Your task to perform on an android device: find which apps use the phone's location Image 0: 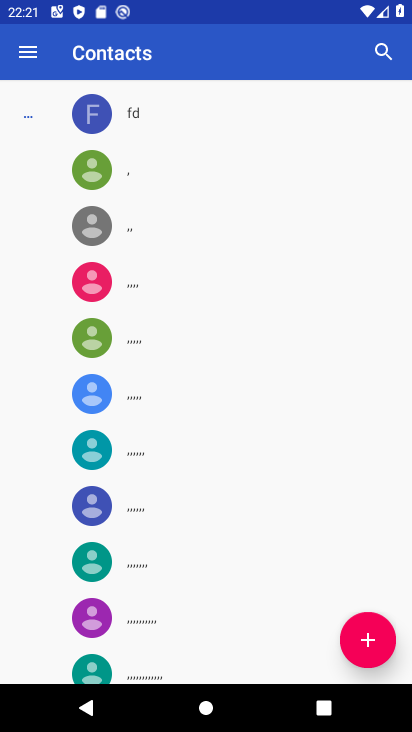
Step 0: press home button
Your task to perform on an android device: find which apps use the phone's location Image 1: 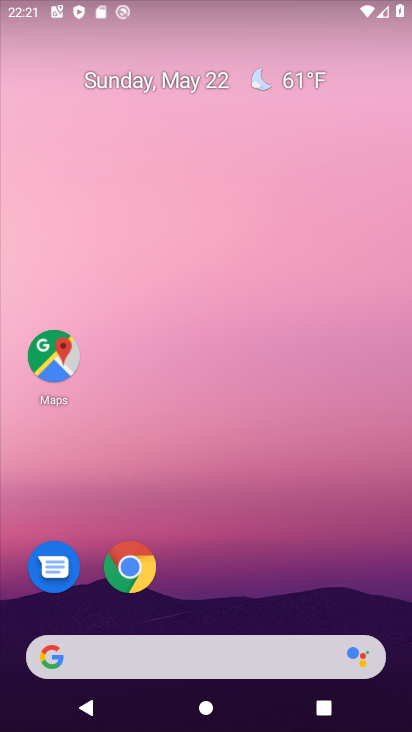
Step 1: drag from (202, 615) to (332, 46)
Your task to perform on an android device: find which apps use the phone's location Image 2: 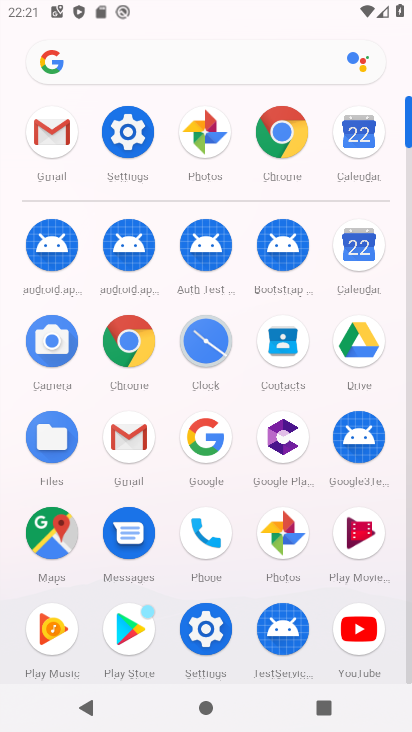
Step 2: click (118, 123)
Your task to perform on an android device: find which apps use the phone's location Image 3: 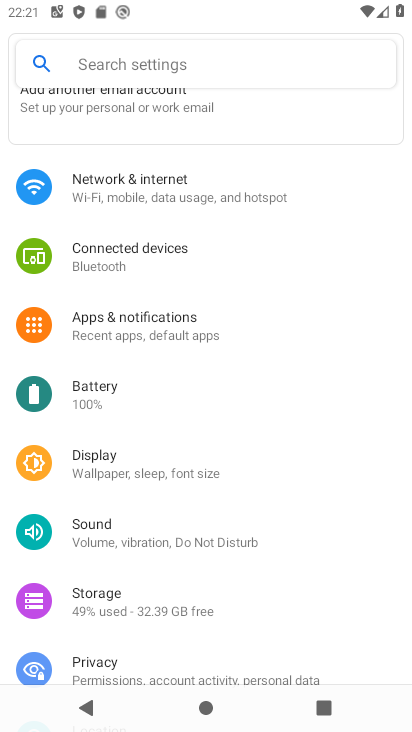
Step 3: drag from (92, 574) to (2, 65)
Your task to perform on an android device: find which apps use the phone's location Image 4: 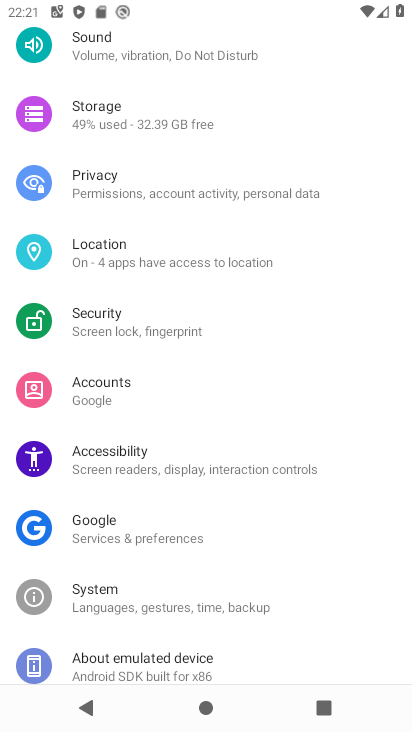
Step 4: click (83, 254)
Your task to perform on an android device: find which apps use the phone's location Image 5: 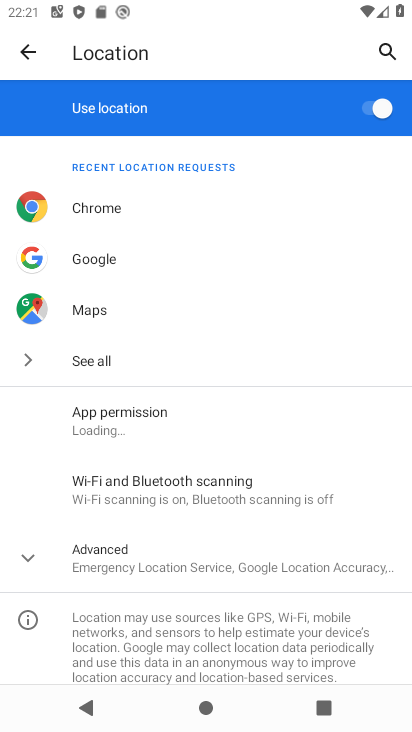
Step 5: click (130, 546)
Your task to perform on an android device: find which apps use the phone's location Image 6: 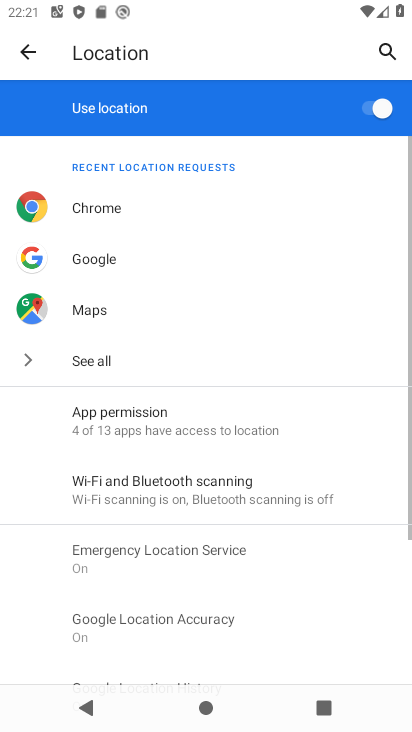
Step 6: click (141, 407)
Your task to perform on an android device: find which apps use the phone's location Image 7: 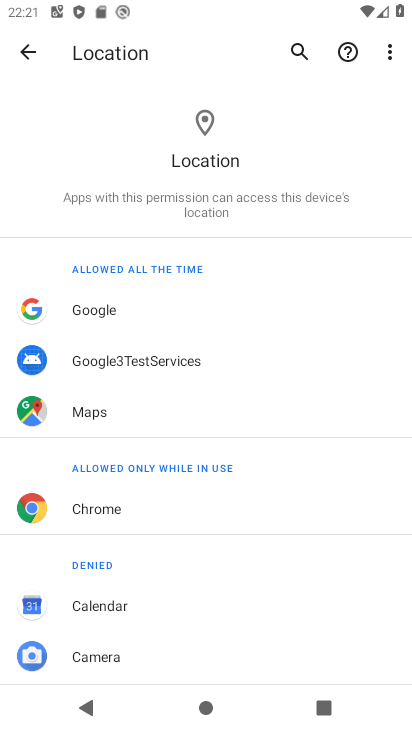
Step 7: task complete